Your task to perform on an android device: toggle translation in the chrome app Image 0: 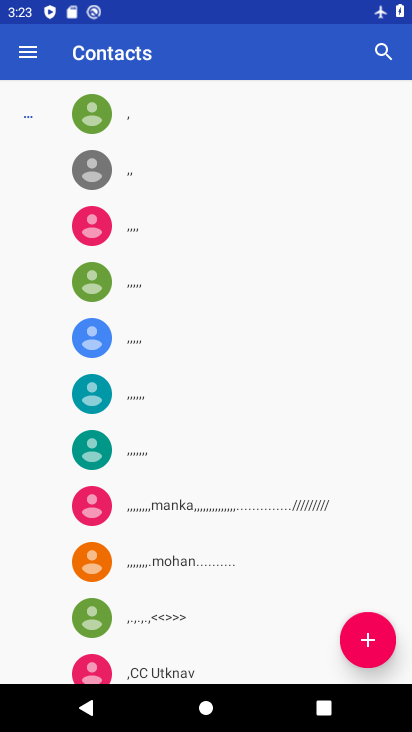
Step 0: press home button
Your task to perform on an android device: toggle translation in the chrome app Image 1: 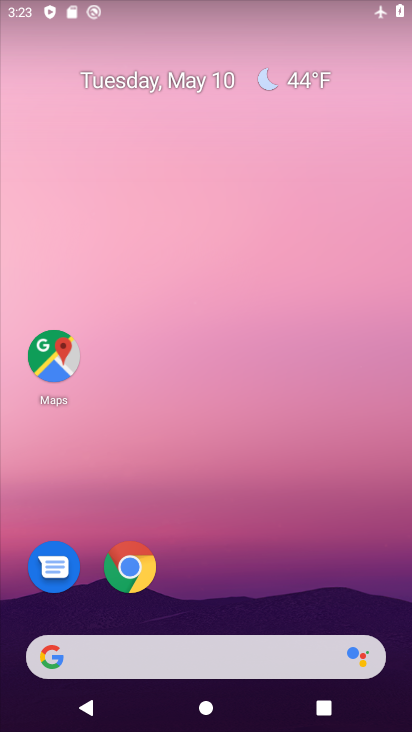
Step 1: click (129, 568)
Your task to perform on an android device: toggle translation in the chrome app Image 2: 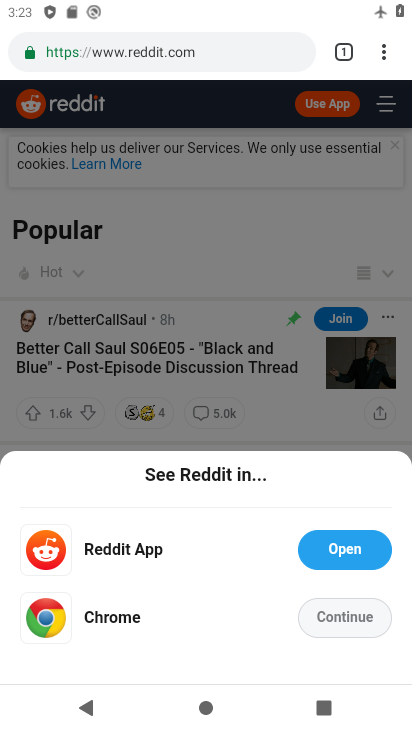
Step 2: click (384, 55)
Your task to perform on an android device: toggle translation in the chrome app Image 3: 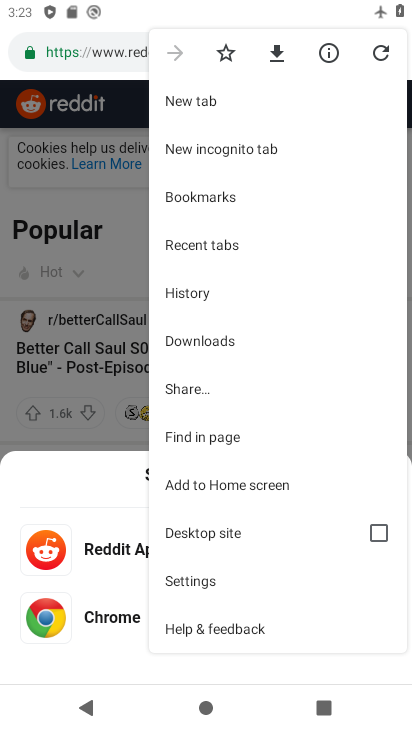
Step 3: click (194, 585)
Your task to perform on an android device: toggle translation in the chrome app Image 4: 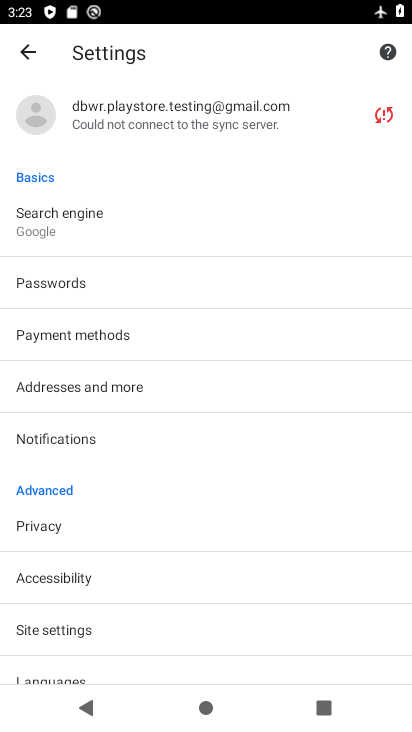
Step 4: click (63, 677)
Your task to perform on an android device: toggle translation in the chrome app Image 5: 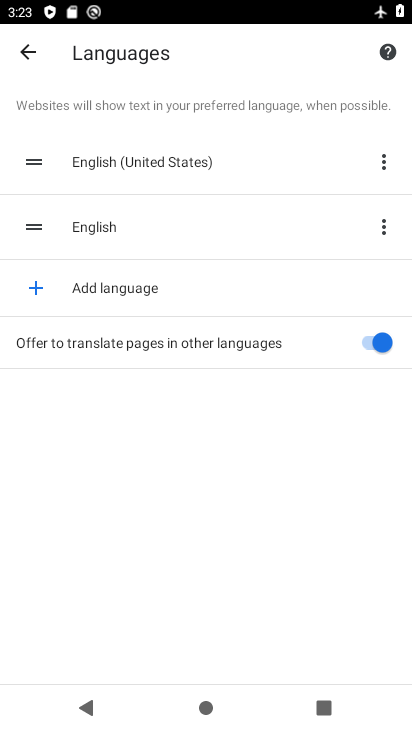
Step 5: click (383, 342)
Your task to perform on an android device: toggle translation in the chrome app Image 6: 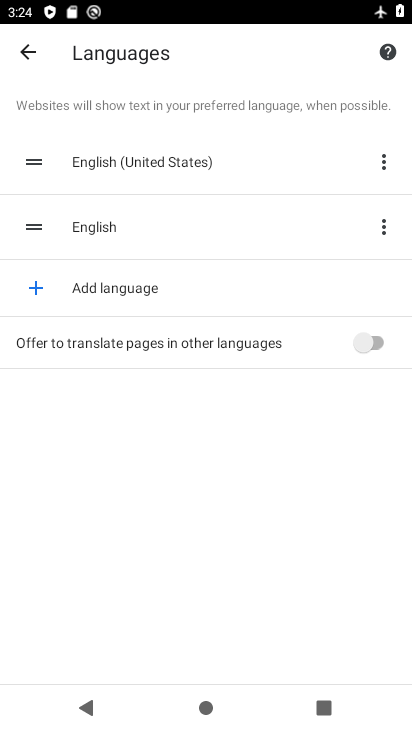
Step 6: task complete